Your task to perform on an android device: allow cookies in the chrome app Image 0: 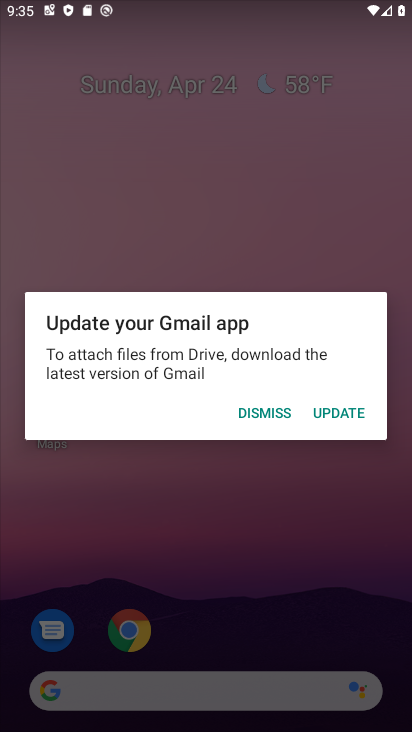
Step 0: press home button
Your task to perform on an android device: allow cookies in the chrome app Image 1: 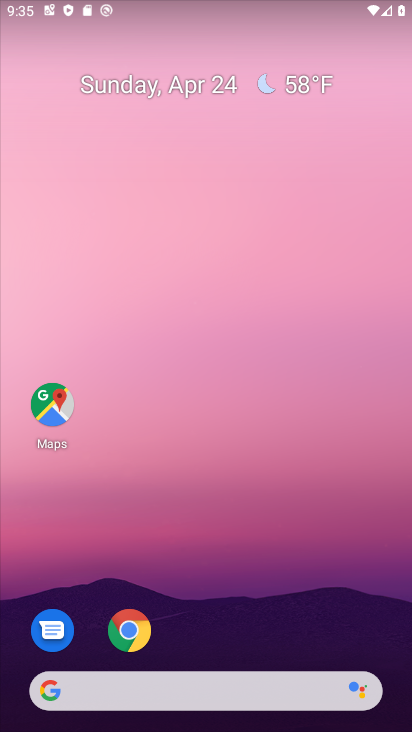
Step 1: drag from (233, 626) to (329, 311)
Your task to perform on an android device: allow cookies in the chrome app Image 2: 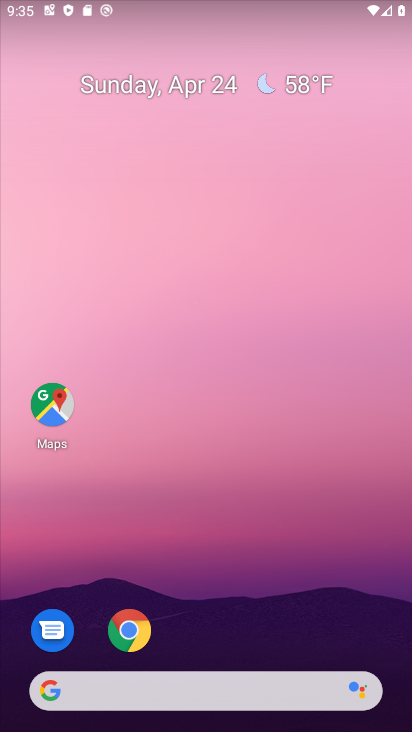
Step 2: drag from (260, 599) to (336, 203)
Your task to perform on an android device: allow cookies in the chrome app Image 3: 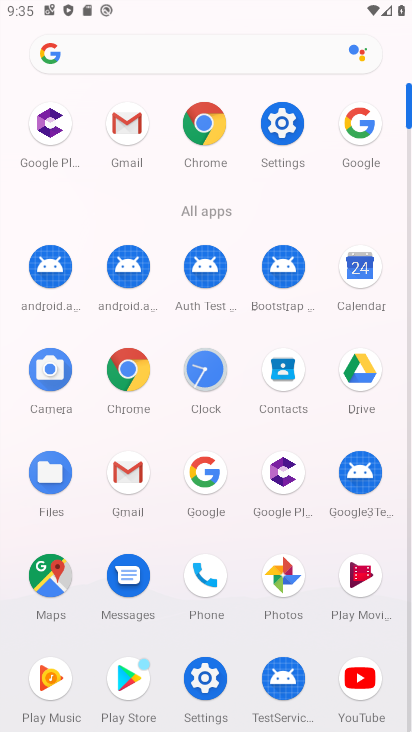
Step 3: click (214, 144)
Your task to perform on an android device: allow cookies in the chrome app Image 4: 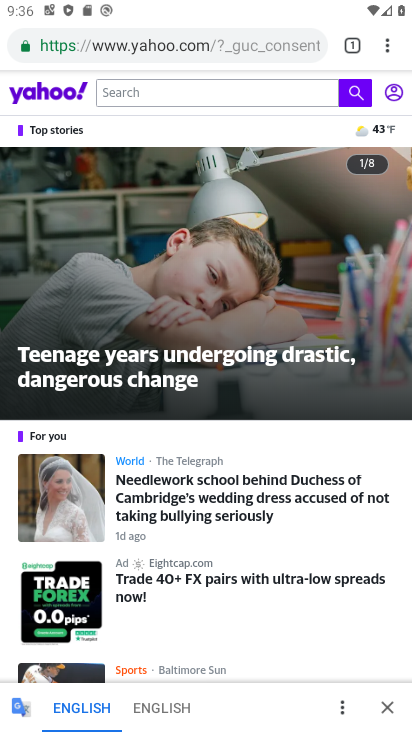
Step 4: click (391, 46)
Your task to perform on an android device: allow cookies in the chrome app Image 5: 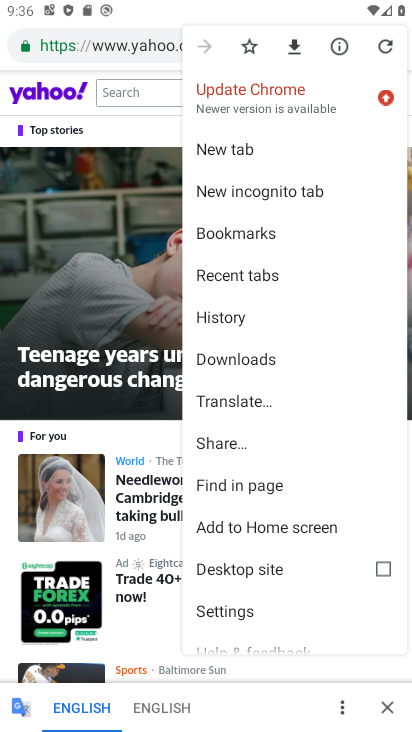
Step 5: drag from (268, 465) to (288, 329)
Your task to perform on an android device: allow cookies in the chrome app Image 6: 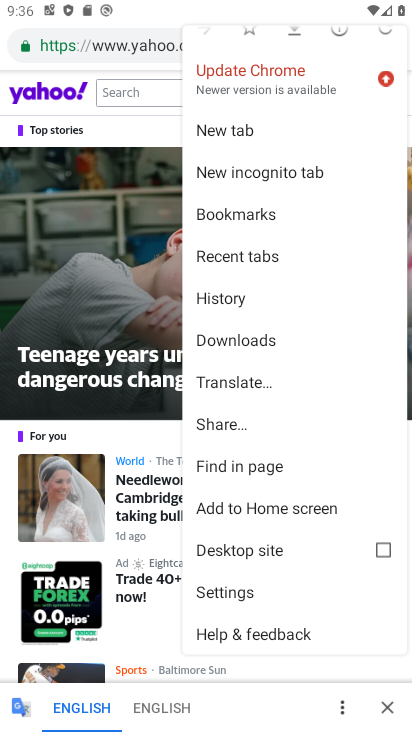
Step 6: click (258, 587)
Your task to perform on an android device: allow cookies in the chrome app Image 7: 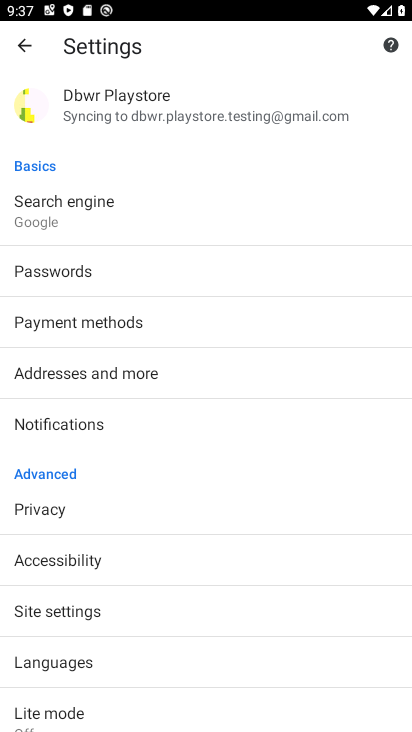
Step 7: drag from (219, 553) to (273, 257)
Your task to perform on an android device: allow cookies in the chrome app Image 8: 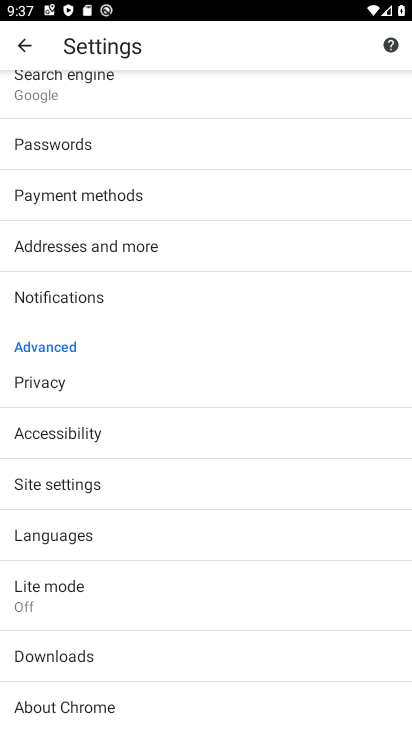
Step 8: drag from (145, 411) to (160, 703)
Your task to perform on an android device: allow cookies in the chrome app Image 9: 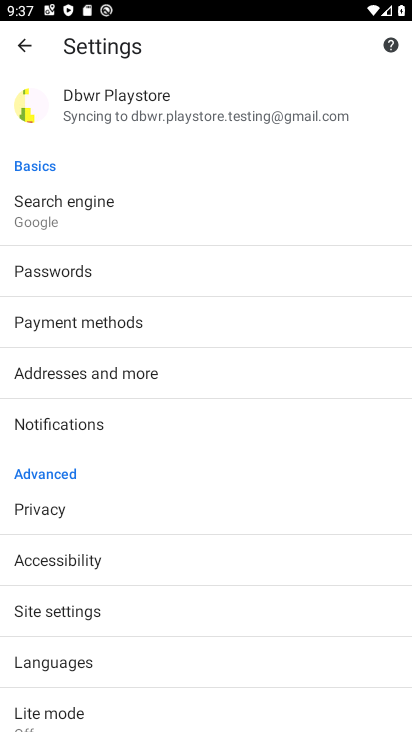
Step 9: click (116, 617)
Your task to perform on an android device: allow cookies in the chrome app Image 10: 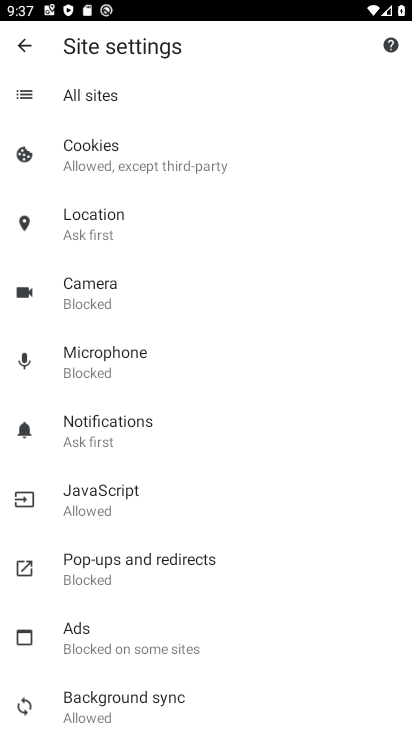
Step 10: click (135, 170)
Your task to perform on an android device: allow cookies in the chrome app Image 11: 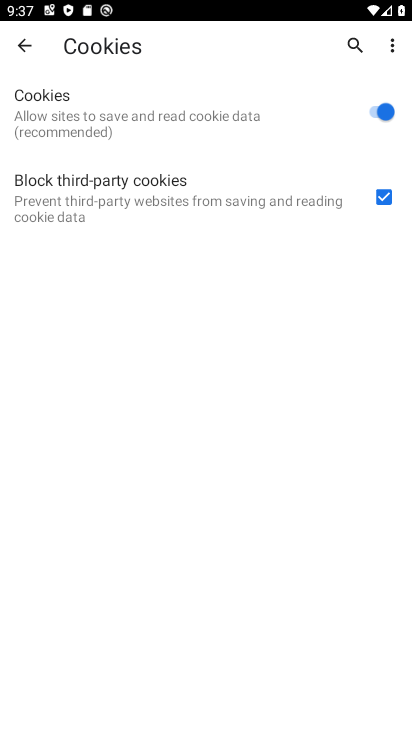
Step 11: task complete